Your task to perform on an android device: change the clock display to analog Image 0: 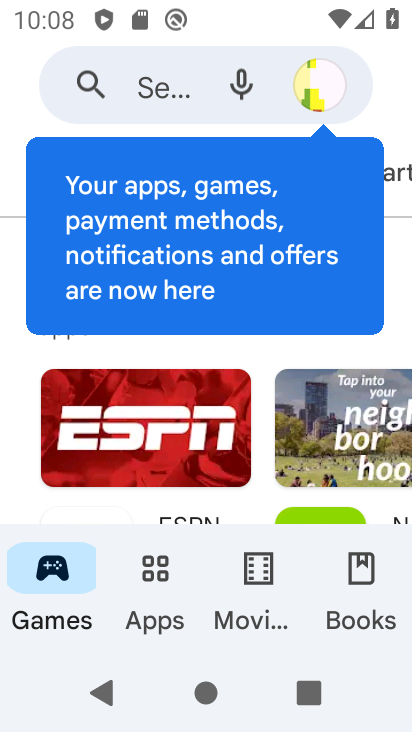
Step 0: press back button
Your task to perform on an android device: change the clock display to analog Image 1: 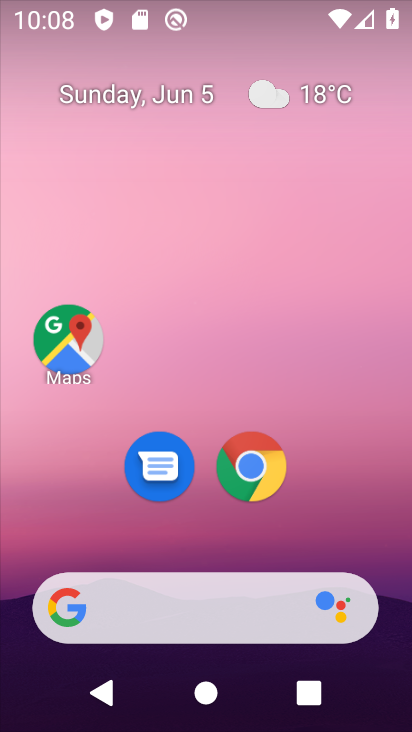
Step 1: drag from (340, 512) to (259, 139)
Your task to perform on an android device: change the clock display to analog Image 2: 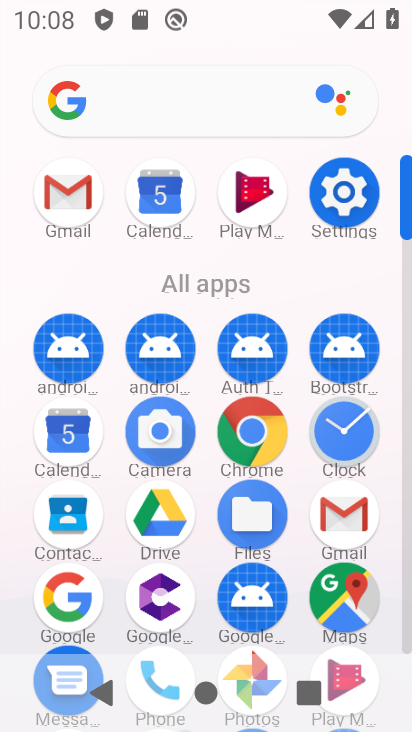
Step 2: click (340, 429)
Your task to perform on an android device: change the clock display to analog Image 3: 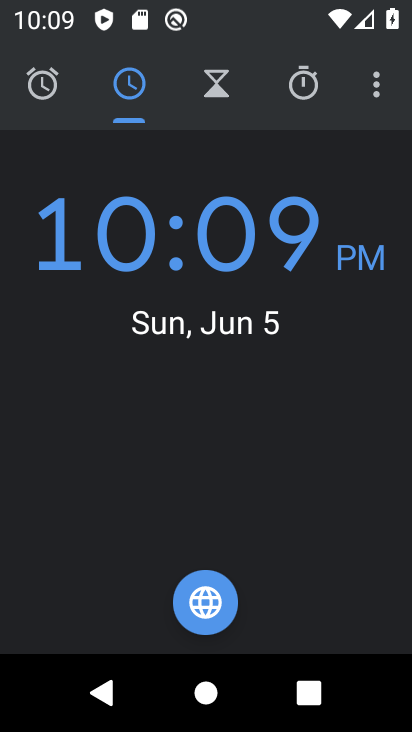
Step 3: click (376, 84)
Your task to perform on an android device: change the clock display to analog Image 4: 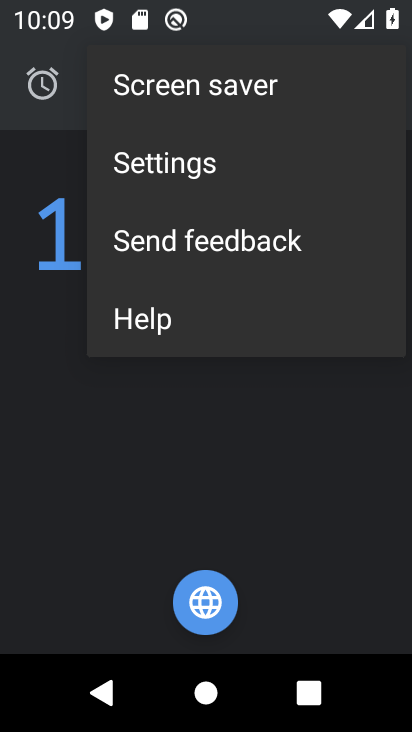
Step 4: click (207, 166)
Your task to perform on an android device: change the clock display to analog Image 5: 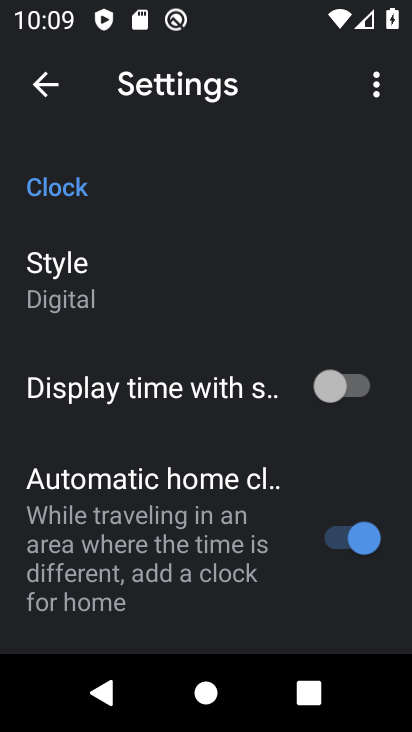
Step 5: click (138, 283)
Your task to perform on an android device: change the clock display to analog Image 6: 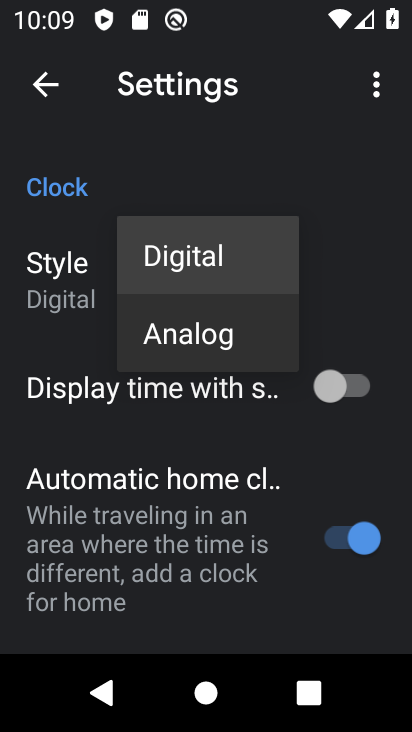
Step 6: click (175, 326)
Your task to perform on an android device: change the clock display to analog Image 7: 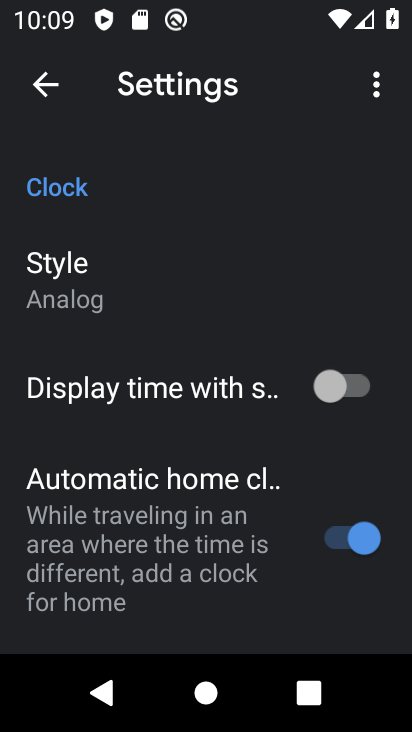
Step 7: task complete